Your task to perform on an android device: toggle data saver in the chrome app Image 0: 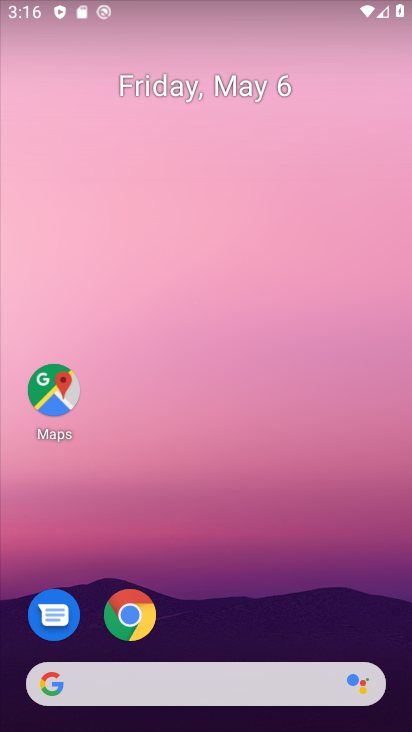
Step 0: drag from (319, 619) to (341, 450)
Your task to perform on an android device: toggle data saver in the chrome app Image 1: 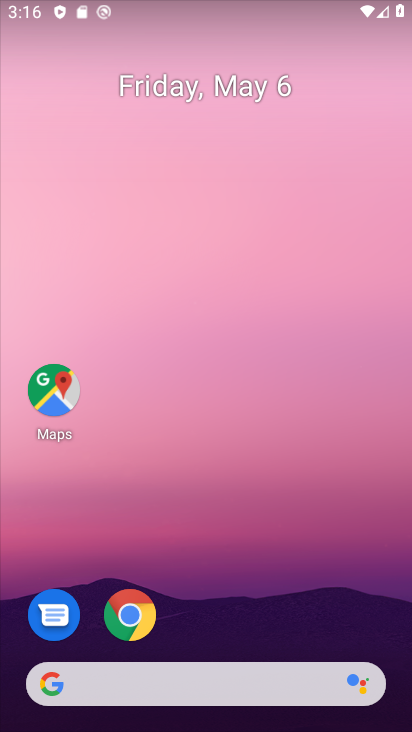
Step 1: click (137, 618)
Your task to perform on an android device: toggle data saver in the chrome app Image 2: 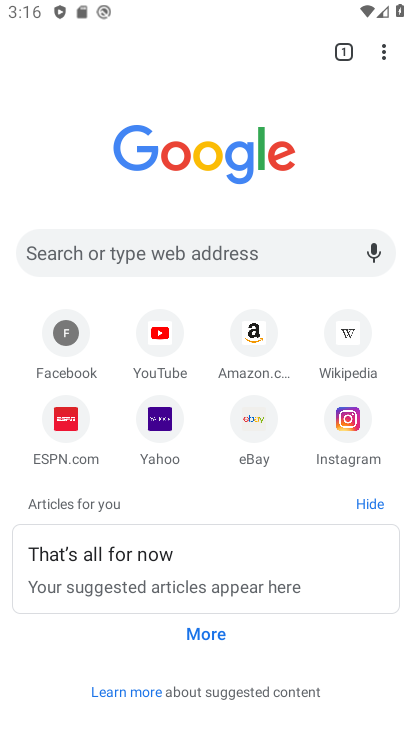
Step 2: drag from (376, 45) to (243, 438)
Your task to perform on an android device: toggle data saver in the chrome app Image 3: 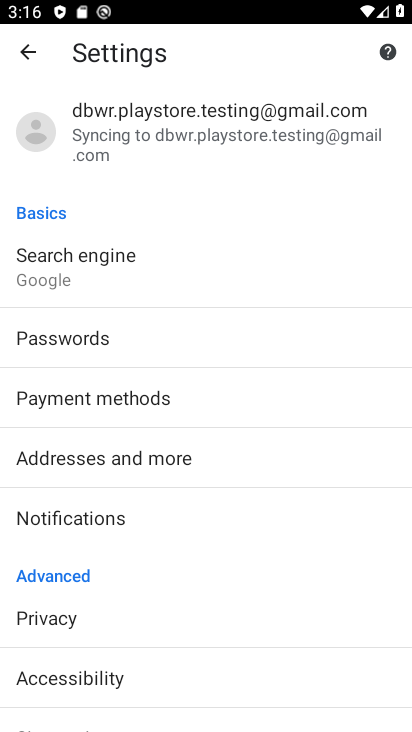
Step 3: drag from (245, 615) to (292, 288)
Your task to perform on an android device: toggle data saver in the chrome app Image 4: 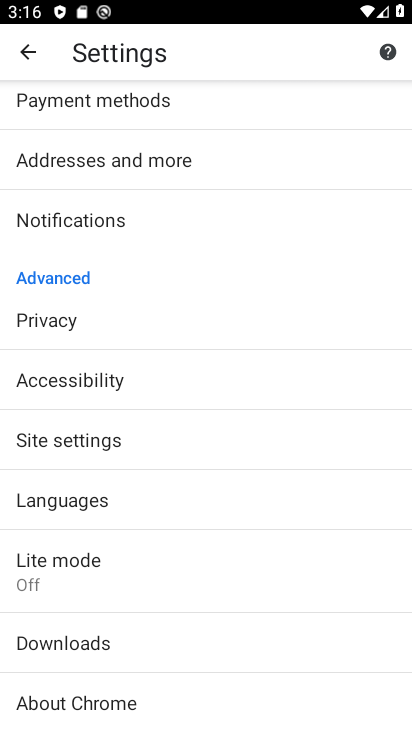
Step 4: click (80, 561)
Your task to perform on an android device: toggle data saver in the chrome app Image 5: 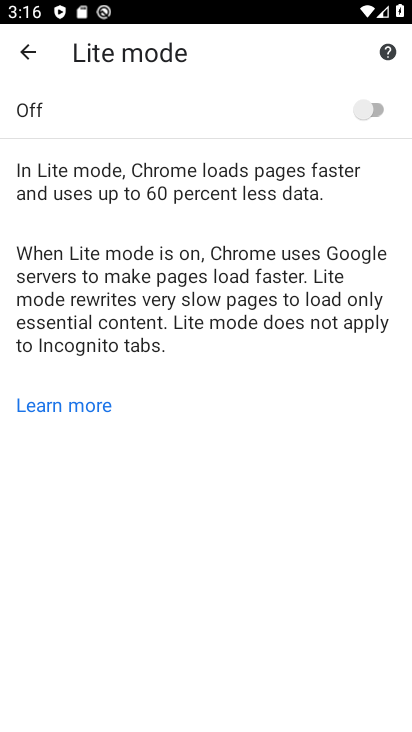
Step 5: click (378, 111)
Your task to perform on an android device: toggle data saver in the chrome app Image 6: 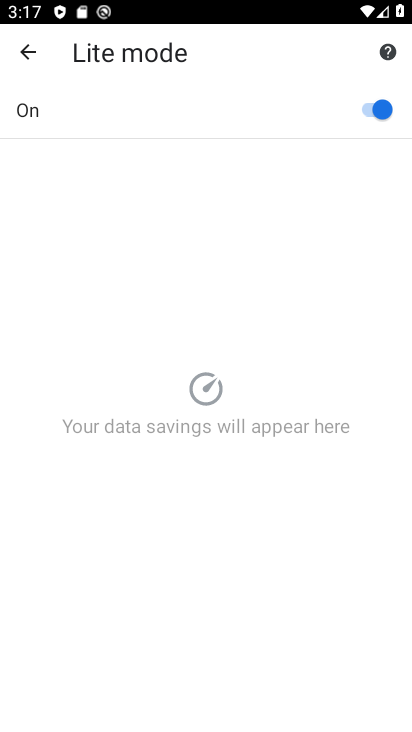
Step 6: task complete